Your task to perform on an android device: Toggle the flashlight Image 0: 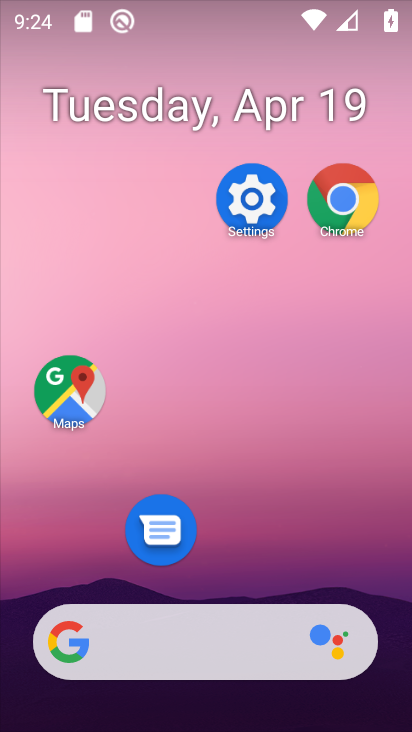
Step 0: drag from (209, 560) to (237, 247)
Your task to perform on an android device: Toggle the flashlight Image 1: 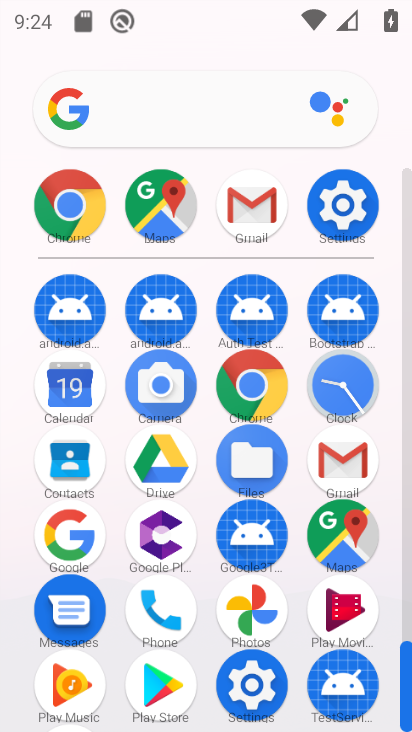
Step 1: click (342, 205)
Your task to perform on an android device: Toggle the flashlight Image 2: 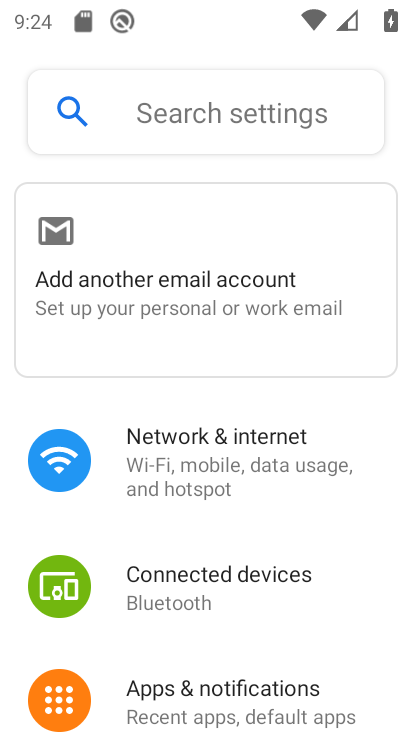
Step 2: click (177, 113)
Your task to perform on an android device: Toggle the flashlight Image 3: 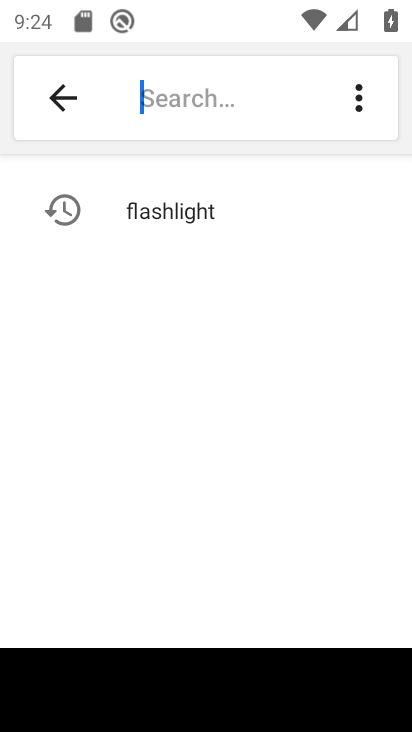
Step 3: type "flashlight"
Your task to perform on an android device: Toggle the flashlight Image 4: 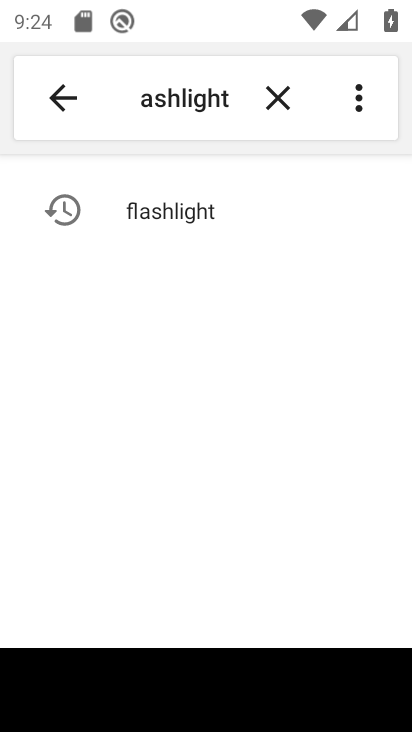
Step 4: click (213, 210)
Your task to perform on an android device: Toggle the flashlight Image 5: 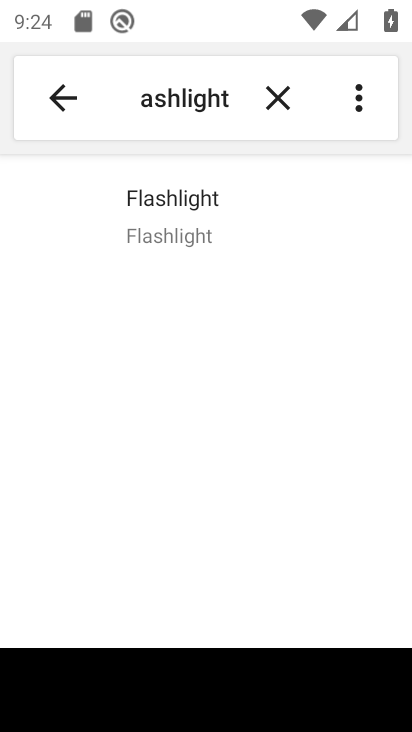
Step 5: task complete